Your task to perform on an android device: toggle show notifications on the lock screen Image 0: 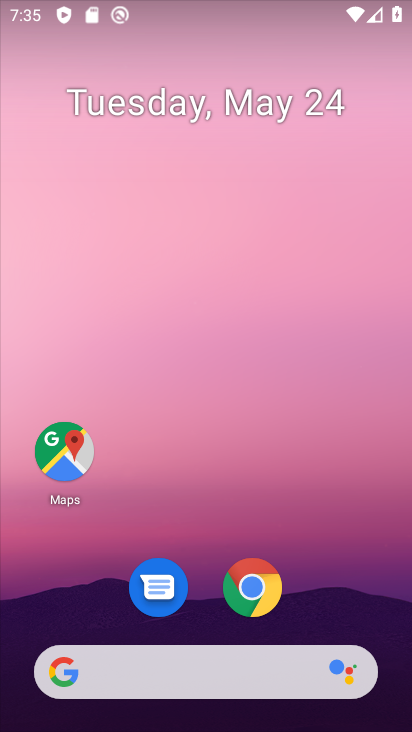
Step 0: drag from (201, 601) to (364, 33)
Your task to perform on an android device: toggle show notifications on the lock screen Image 1: 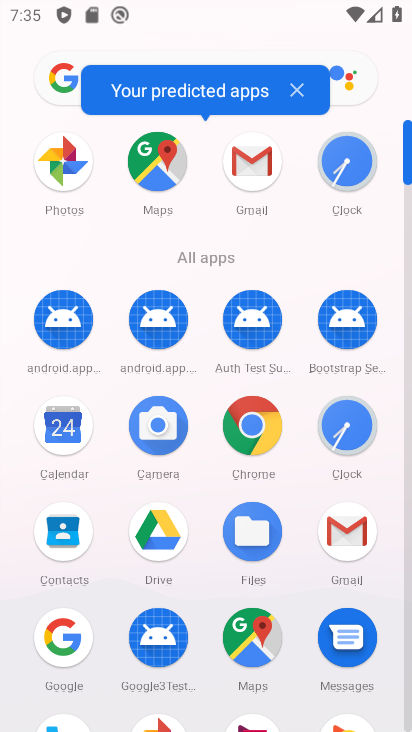
Step 1: drag from (199, 532) to (213, 117)
Your task to perform on an android device: toggle show notifications on the lock screen Image 2: 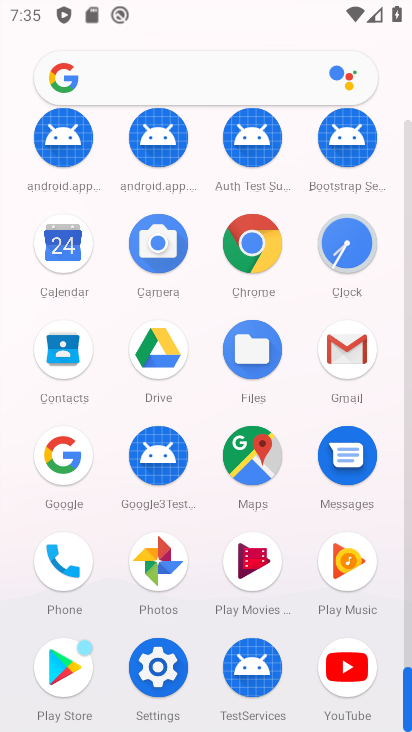
Step 2: click (144, 662)
Your task to perform on an android device: toggle show notifications on the lock screen Image 3: 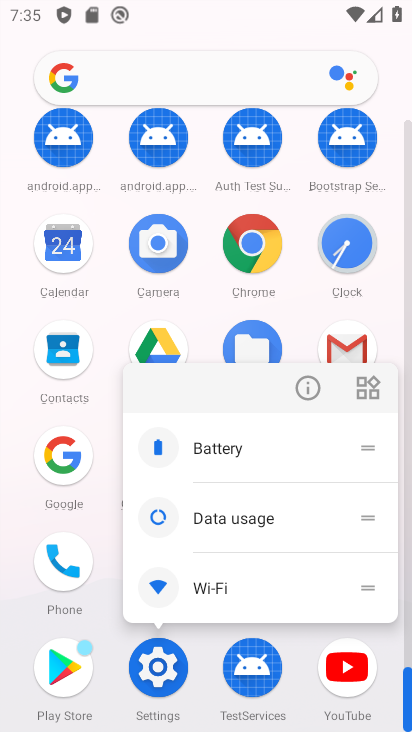
Step 3: click (144, 662)
Your task to perform on an android device: toggle show notifications on the lock screen Image 4: 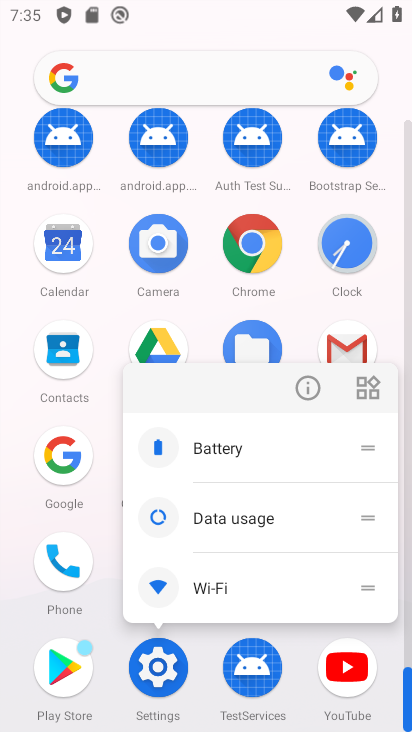
Step 4: click (144, 662)
Your task to perform on an android device: toggle show notifications on the lock screen Image 5: 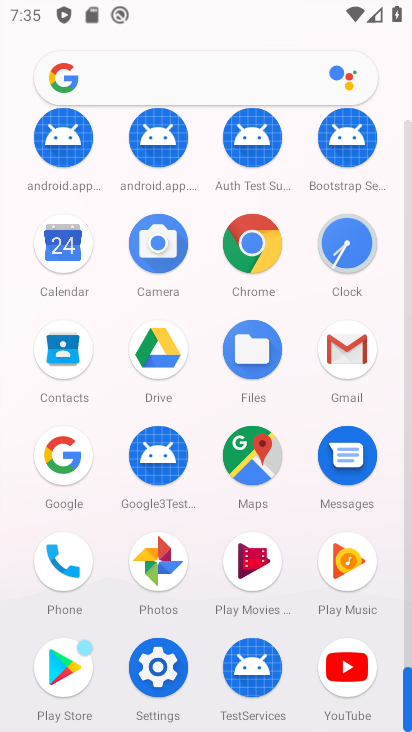
Step 5: click (161, 666)
Your task to perform on an android device: toggle show notifications on the lock screen Image 6: 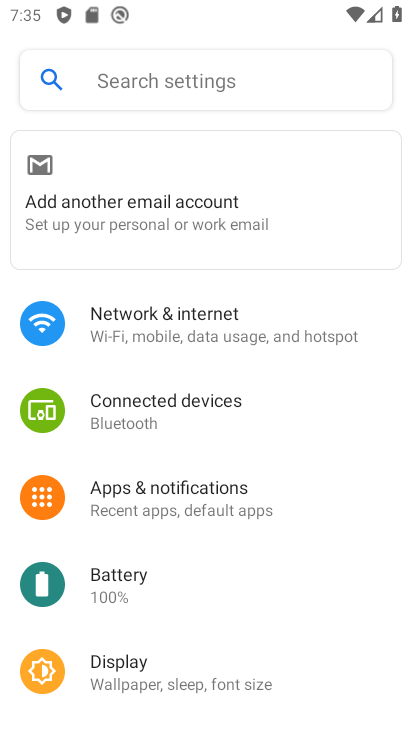
Step 6: click (208, 509)
Your task to perform on an android device: toggle show notifications on the lock screen Image 7: 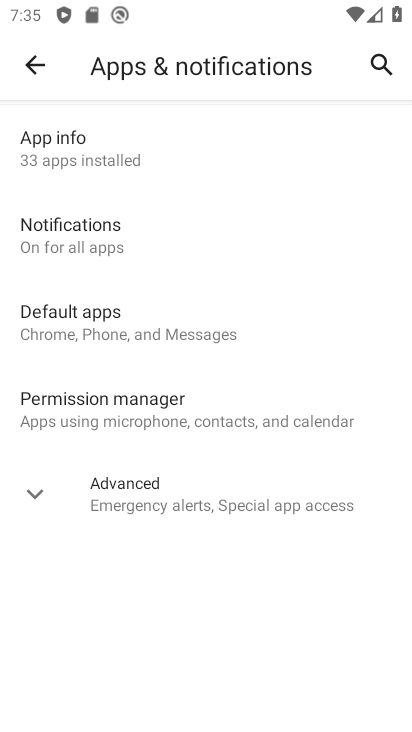
Step 7: click (66, 248)
Your task to perform on an android device: toggle show notifications on the lock screen Image 8: 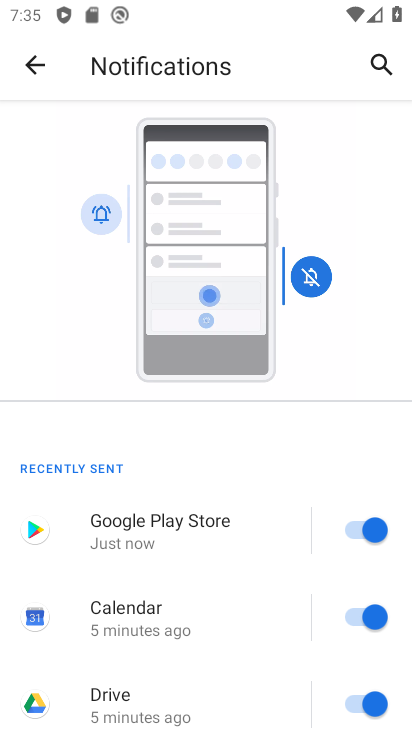
Step 8: drag from (102, 687) to (158, 134)
Your task to perform on an android device: toggle show notifications on the lock screen Image 9: 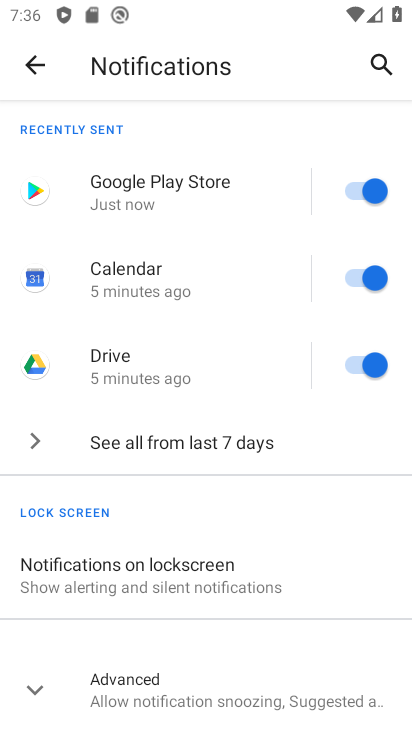
Step 9: click (50, 577)
Your task to perform on an android device: toggle show notifications on the lock screen Image 10: 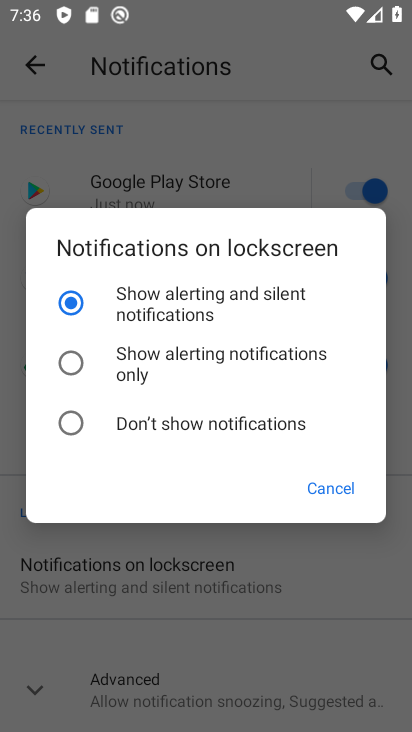
Step 10: click (67, 411)
Your task to perform on an android device: toggle show notifications on the lock screen Image 11: 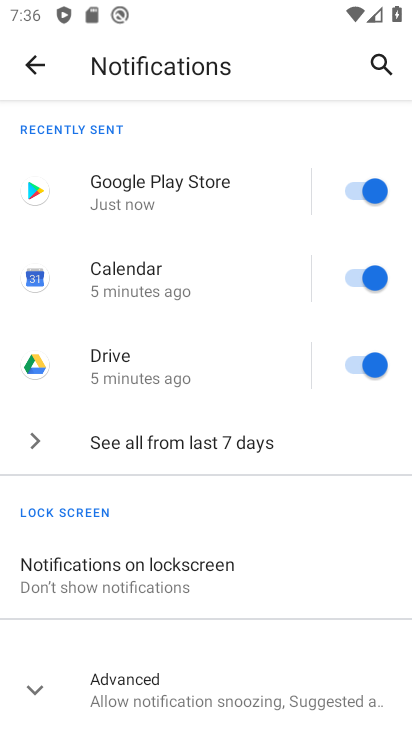
Step 11: task complete